Your task to perform on an android device: Go to privacy settings Image 0: 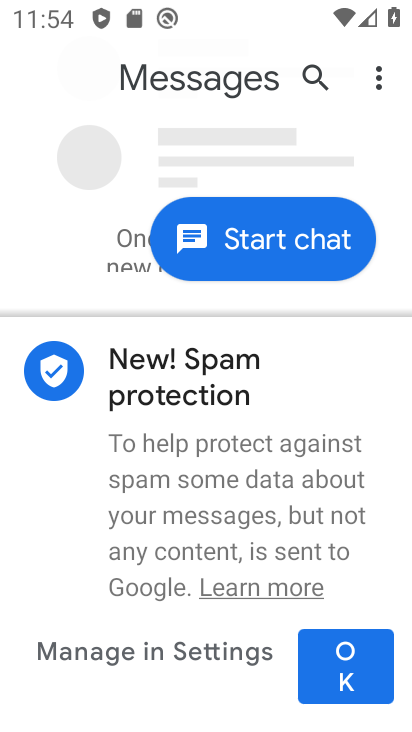
Step 0: press home button
Your task to perform on an android device: Go to privacy settings Image 1: 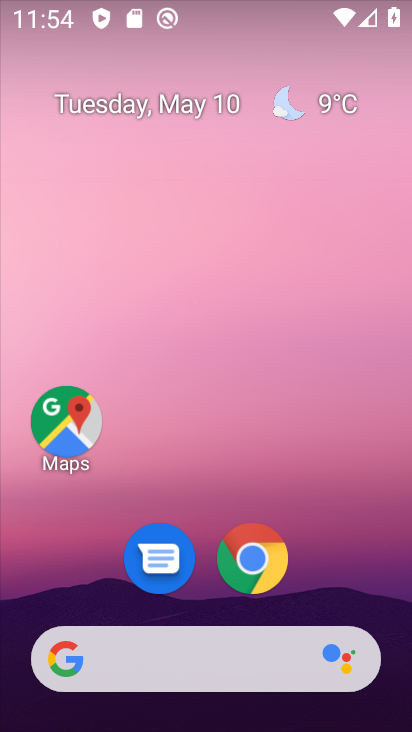
Step 1: drag from (339, 596) to (348, 217)
Your task to perform on an android device: Go to privacy settings Image 2: 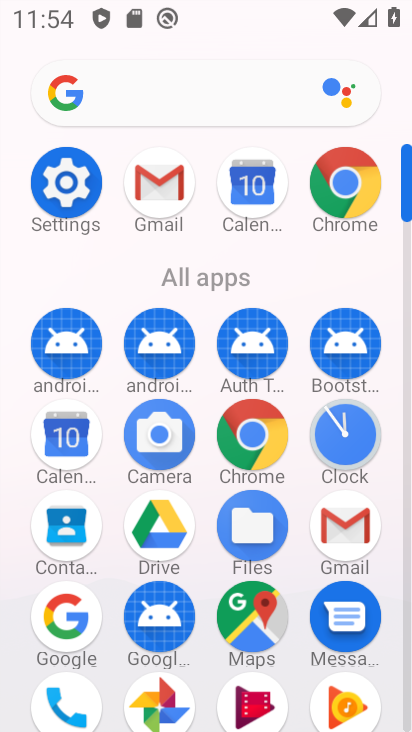
Step 2: click (76, 196)
Your task to perform on an android device: Go to privacy settings Image 3: 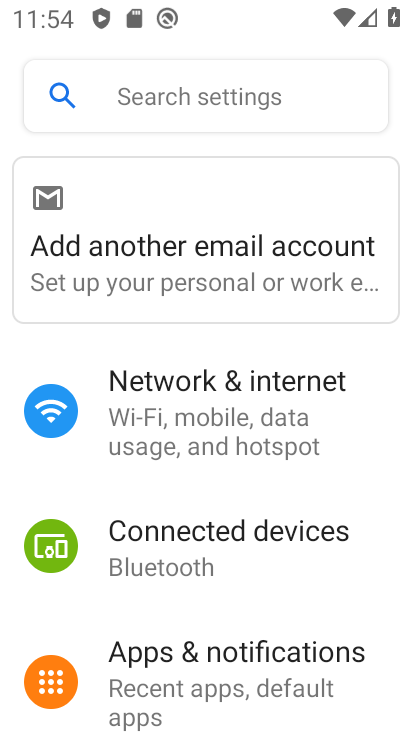
Step 3: drag from (299, 281) to (307, 224)
Your task to perform on an android device: Go to privacy settings Image 4: 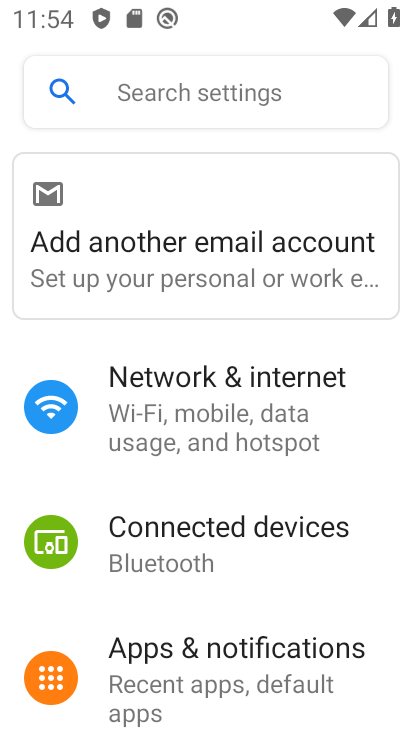
Step 4: drag from (313, 581) to (328, 206)
Your task to perform on an android device: Go to privacy settings Image 5: 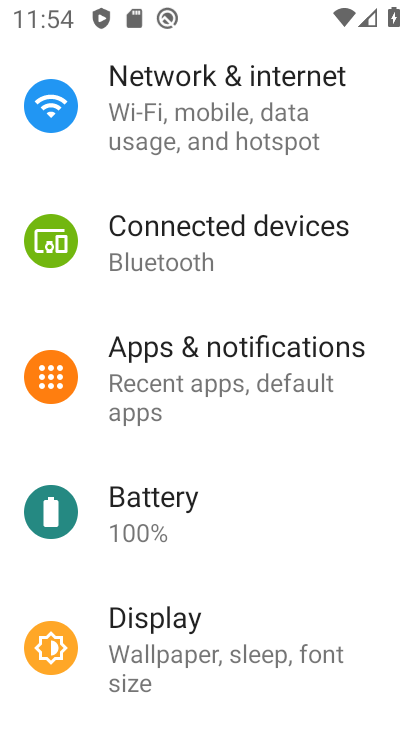
Step 5: drag from (307, 521) to (343, 127)
Your task to perform on an android device: Go to privacy settings Image 6: 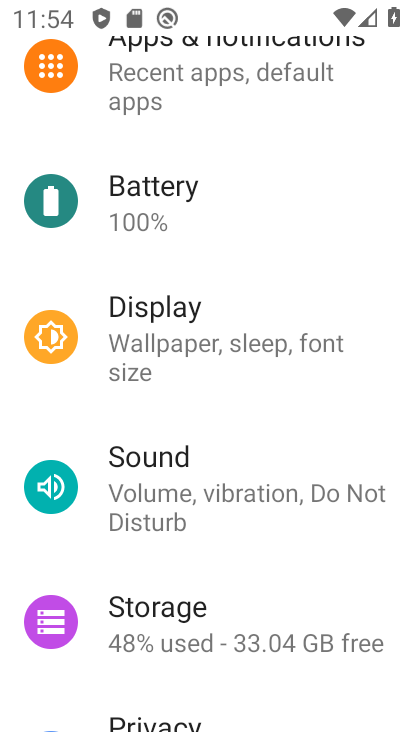
Step 6: drag from (292, 527) to (352, 188)
Your task to perform on an android device: Go to privacy settings Image 7: 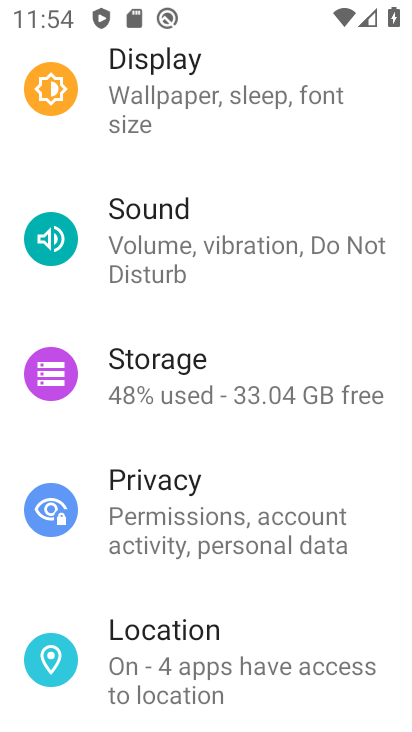
Step 7: click (261, 535)
Your task to perform on an android device: Go to privacy settings Image 8: 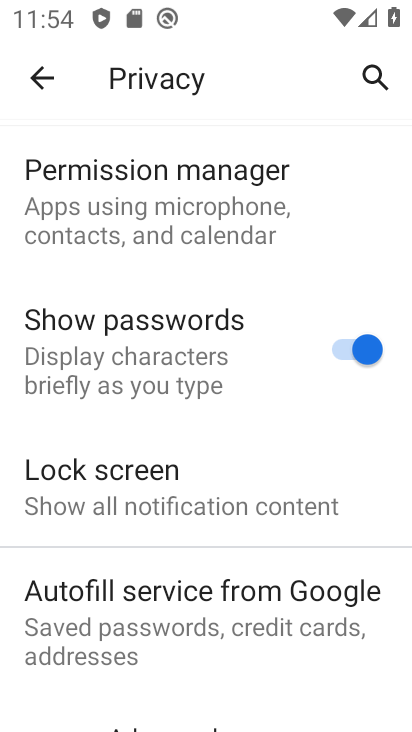
Step 8: task complete